Your task to perform on an android device: delete location history Image 0: 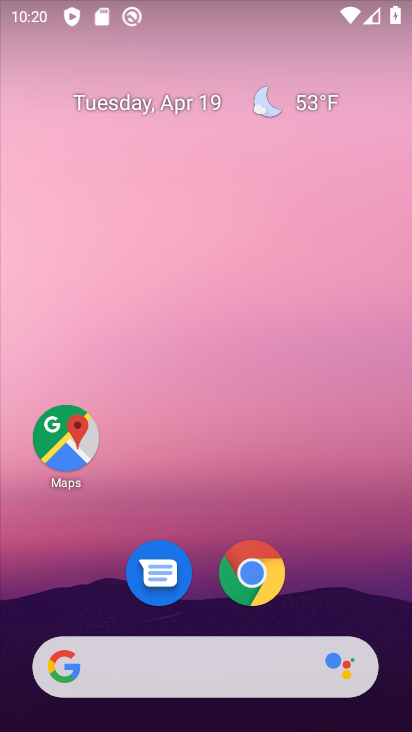
Step 0: drag from (200, 726) to (195, 99)
Your task to perform on an android device: delete location history Image 1: 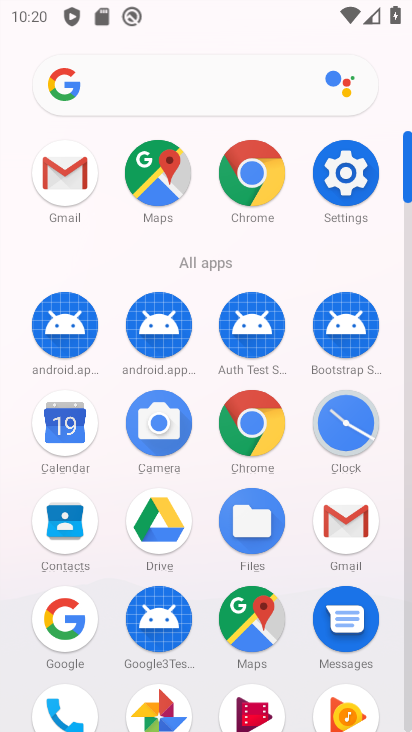
Step 1: click (248, 622)
Your task to perform on an android device: delete location history Image 2: 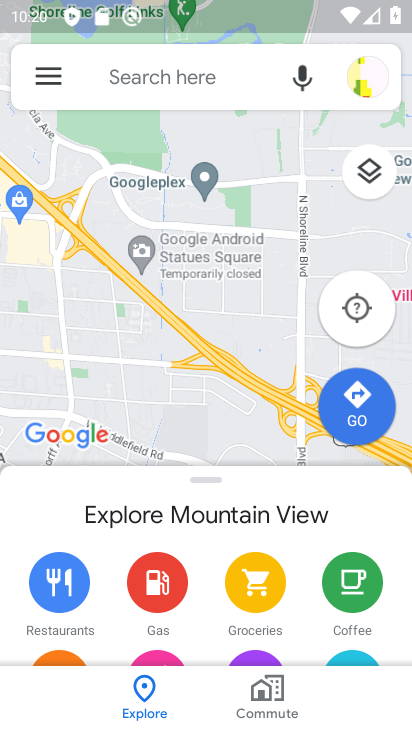
Step 2: click (46, 78)
Your task to perform on an android device: delete location history Image 3: 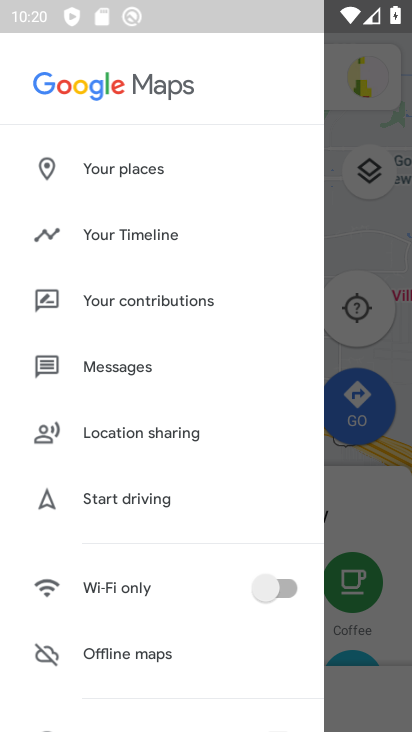
Step 3: click (103, 233)
Your task to perform on an android device: delete location history Image 4: 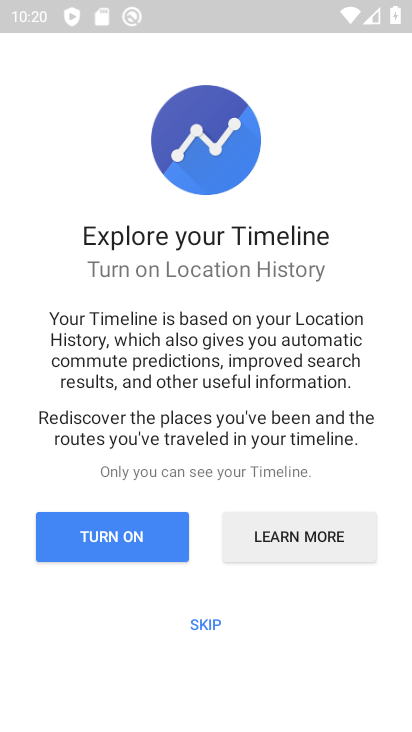
Step 4: click (207, 626)
Your task to perform on an android device: delete location history Image 5: 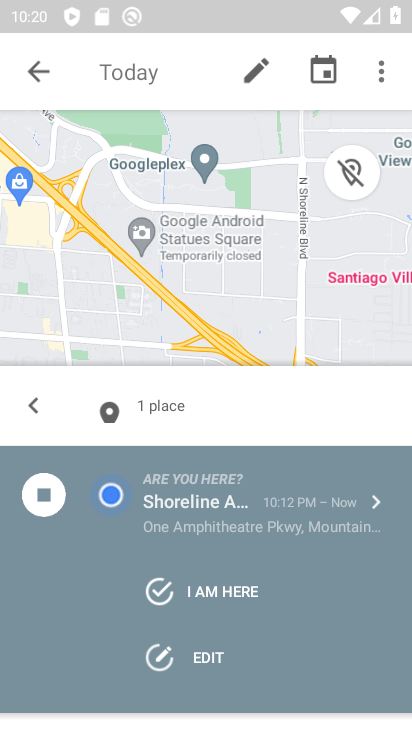
Step 5: click (381, 75)
Your task to perform on an android device: delete location history Image 6: 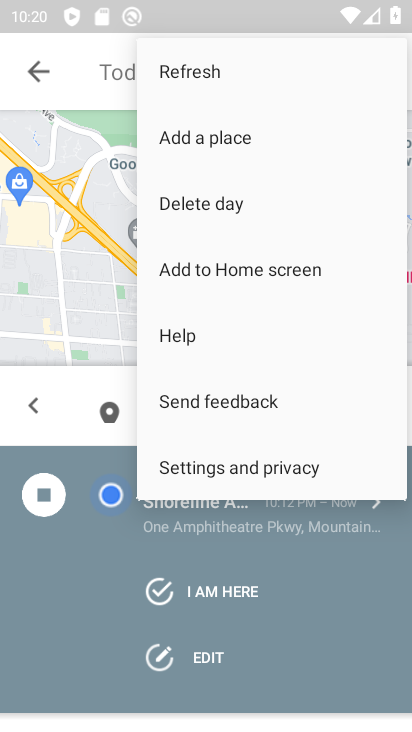
Step 6: click (209, 465)
Your task to perform on an android device: delete location history Image 7: 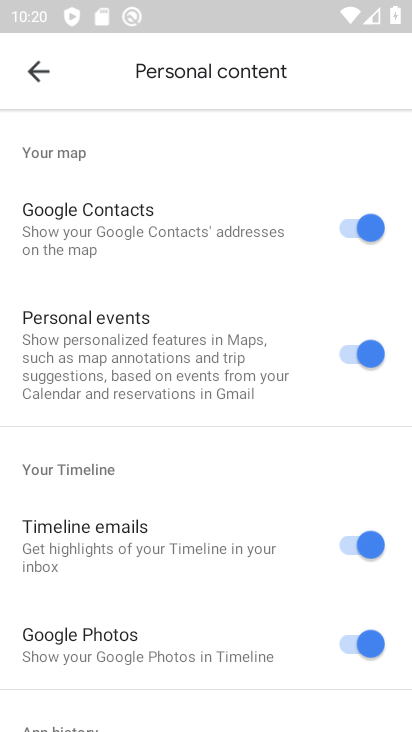
Step 7: drag from (176, 631) to (193, 175)
Your task to perform on an android device: delete location history Image 8: 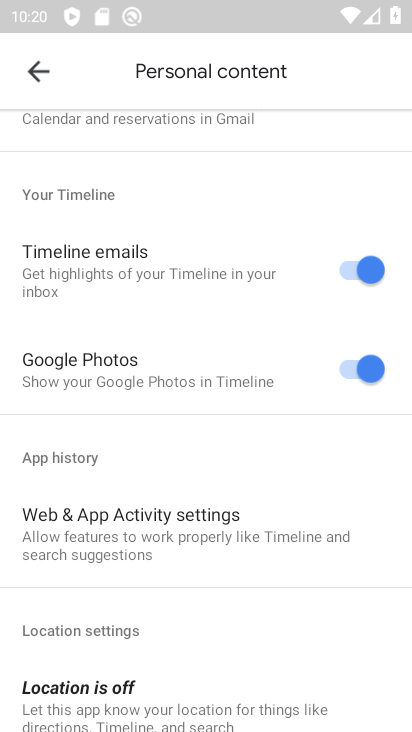
Step 8: drag from (182, 689) to (189, 152)
Your task to perform on an android device: delete location history Image 9: 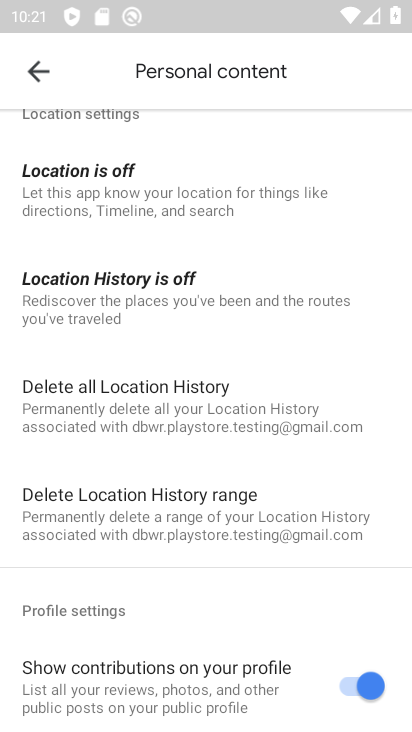
Step 9: click (121, 407)
Your task to perform on an android device: delete location history Image 10: 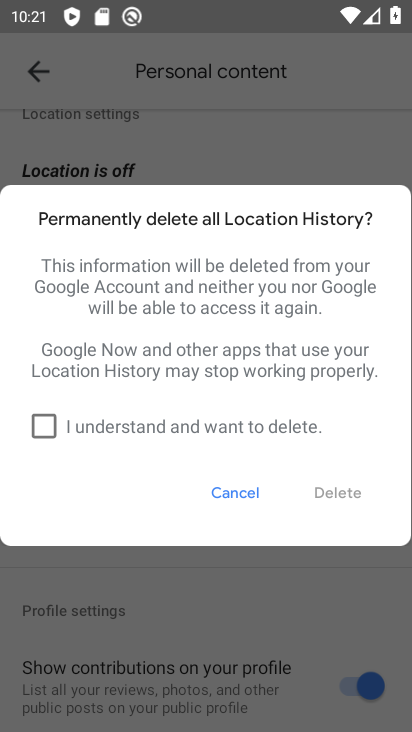
Step 10: click (47, 420)
Your task to perform on an android device: delete location history Image 11: 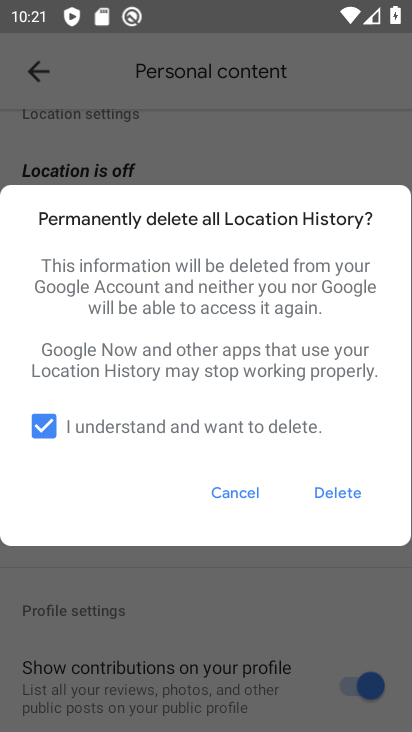
Step 11: click (336, 490)
Your task to perform on an android device: delete location history Image 12: 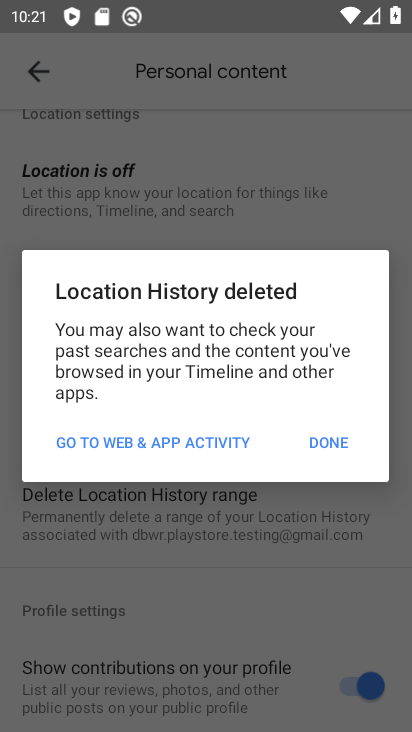
Step 12: click (330, 438)
Your task to perform on an android device: delete location history Image 13: 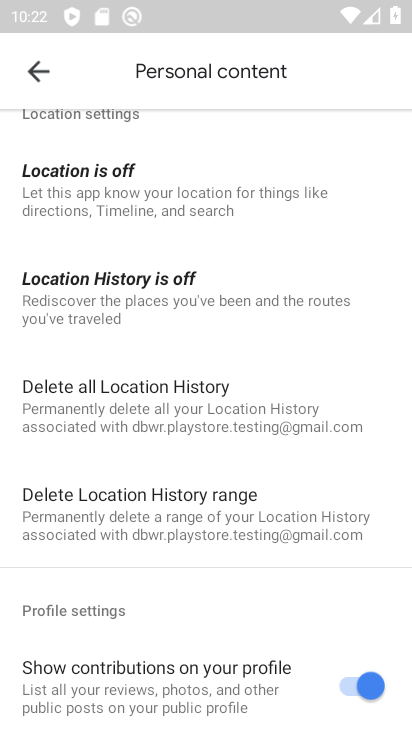
Step 13: task complete